Your task to perform on an android device: Check the weather Image 0: 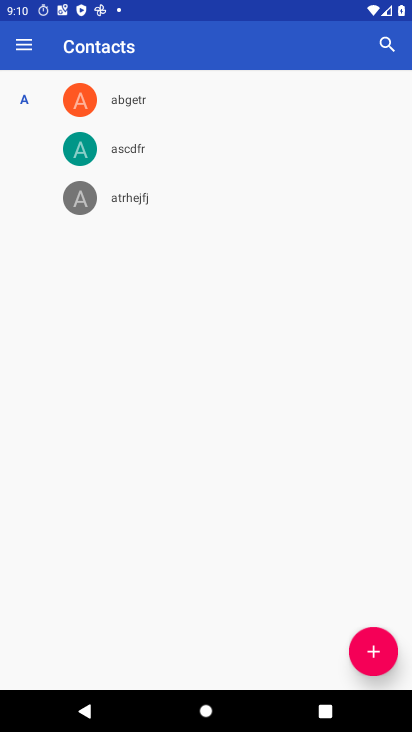
Step 0: press home button
Your task to perform on an android device: Check the weather Image 1: 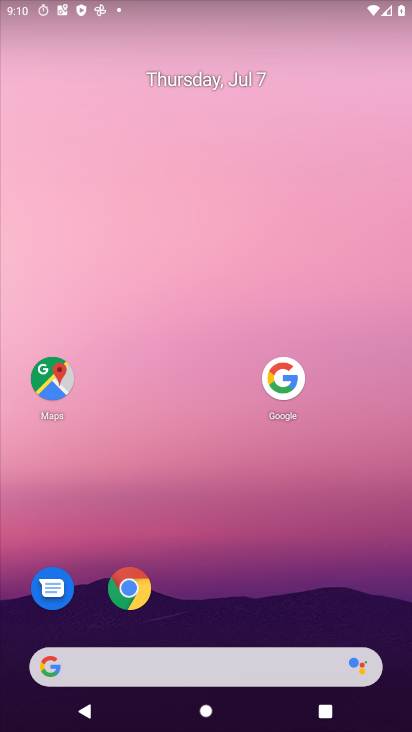
Step 1: click (211, 673)
Your task to perform on an android device: Check the weather Image 2: 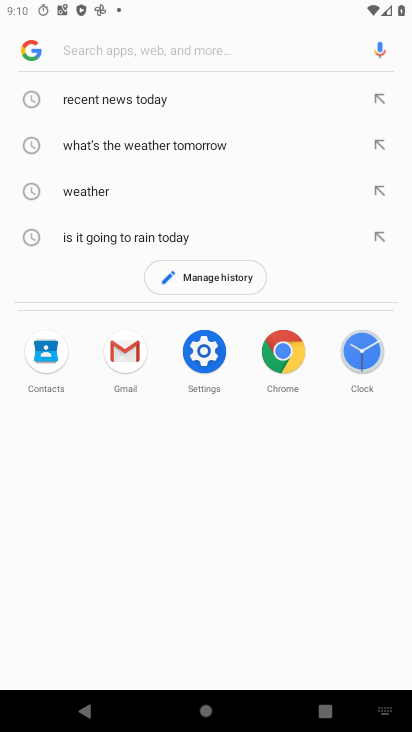
Step 2: click (111, 198)
Your task to perform on an android device: Check the weather Image 3: 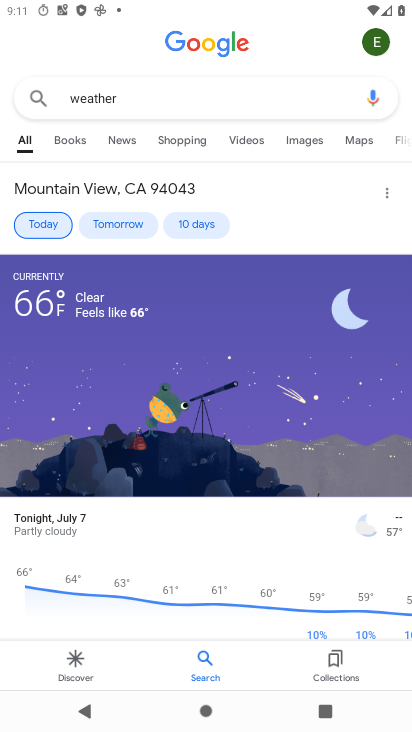
Step 3: task complete